Your task to perform on an android device: Search for Mexican restaurants on Maps Image 0: 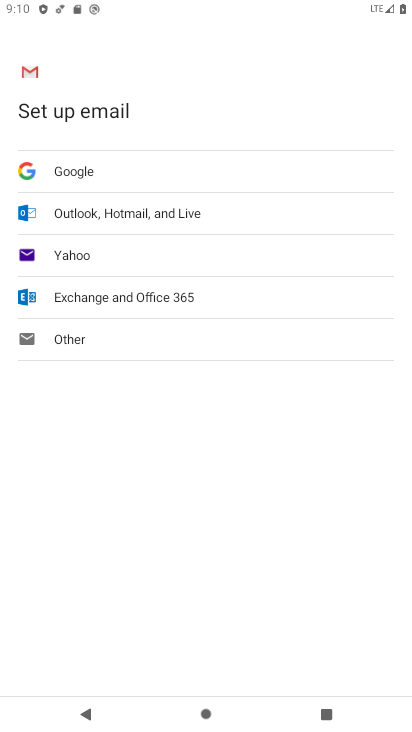
Step 0: press home button
Your task to perform on an android device: Search for Mexican restaurants on Maps Image 1: 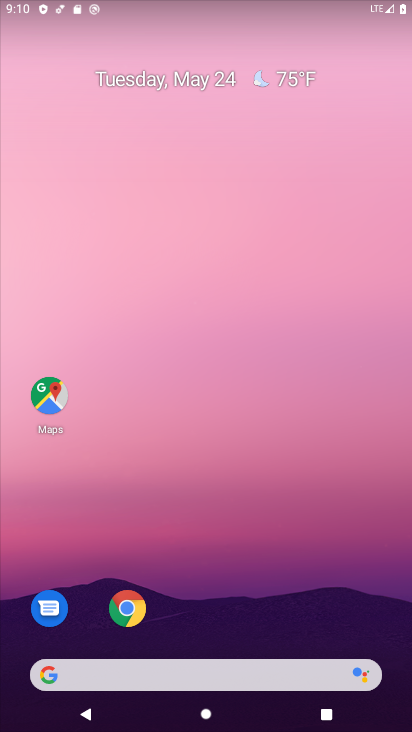
Step 1: click (50, 401)
Your task to perform on an android device: Search for Mexican restaurants on Maps Image 2: 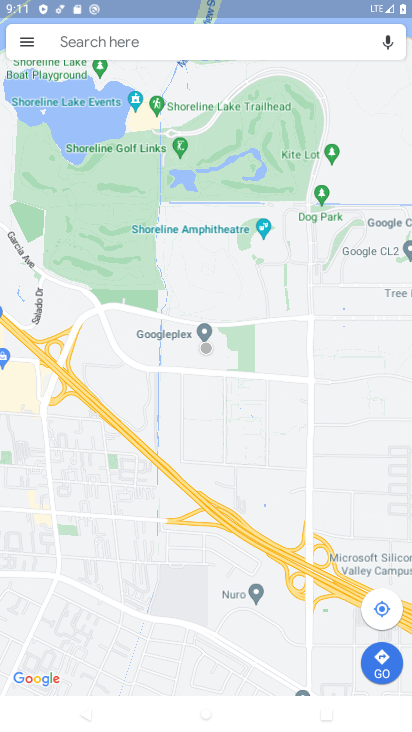
Step 2: click (86, 37)
Your task to perform on an android device: Search for Mexican restaurants on Maps Image 3: 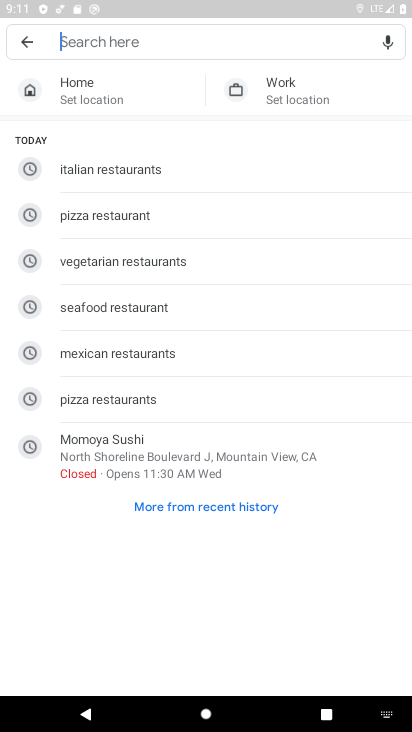
Step 3: click (130, 349)
Your task to perform on an android device: Search for Mexican restaurants on Maps Image 4: 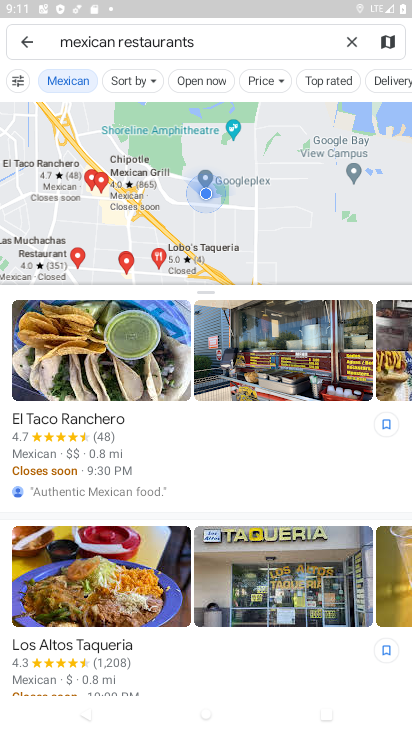
Step 4: task complete